Your task to perform on an android device: toggle airplane mode Image 0: 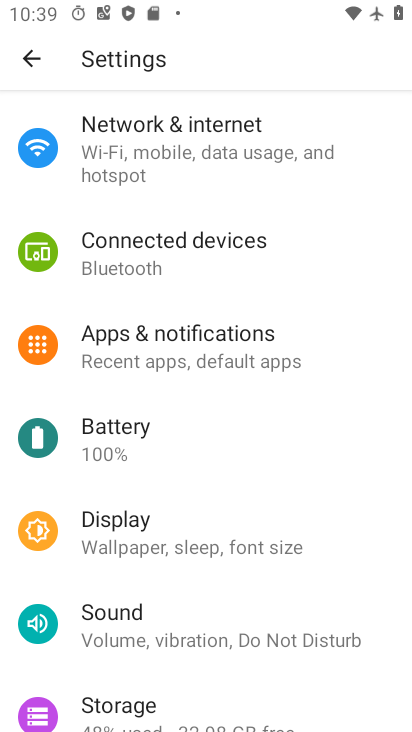
Step 0: drag from (275, 143) to (253, 651)
Your task to perform on an android device: toggle airplane mode Image 1: 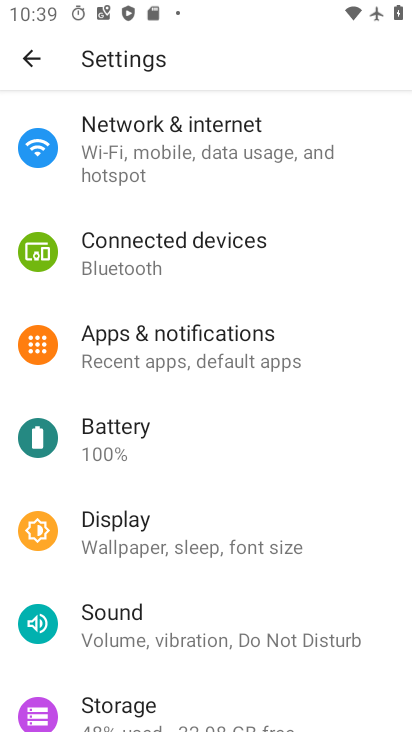
Step 1: click (235, 143)
Your task to perform on an android device: toggle airplane mode Image 2: 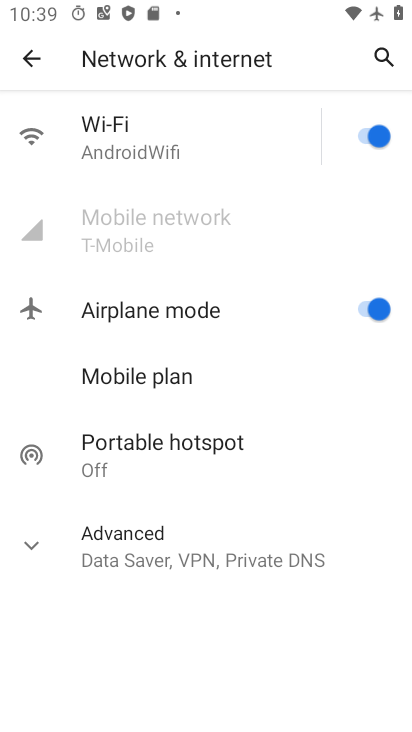
Step 2: click (41, 551)
Your task to perform on an android device: toggle airplane mode Image 3: 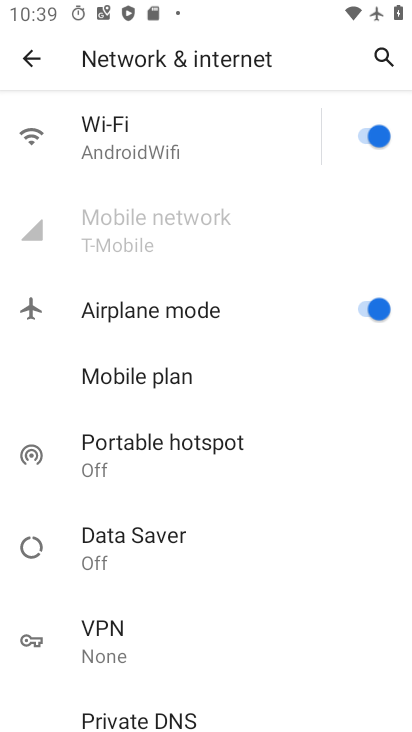
Step 3: drag from (238, 657) to (257, 411)
Your task to perform on an android device: toggle airplane mode Image 4: 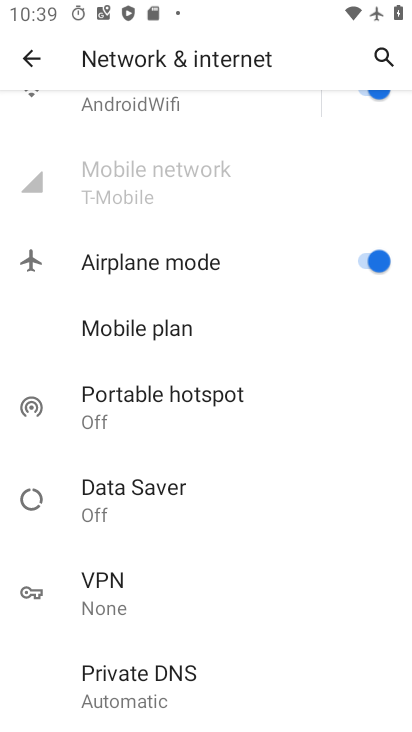
Step 4: click (353, 257)
Your task to perform on an android device: toggle airplane mode Image 5: 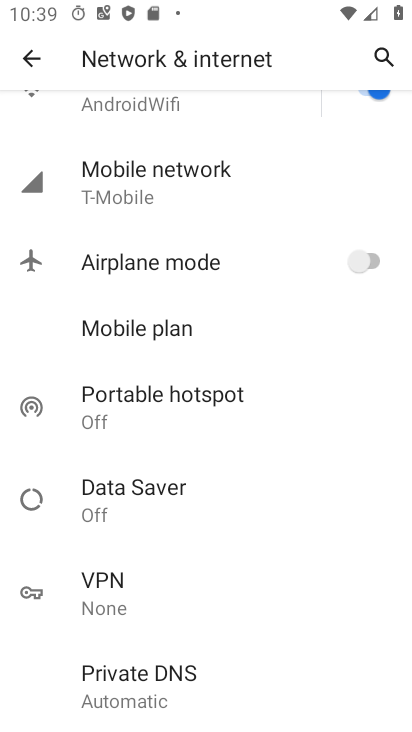
Step 5: task complete